Your task to perform on an android device: Open network settings Image 0: 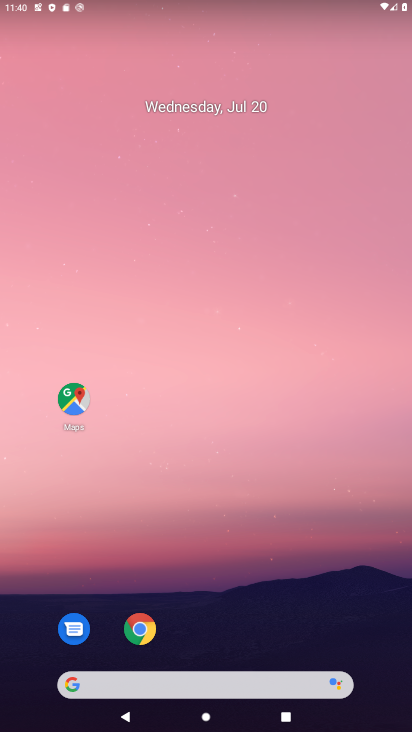
Step 0: click (400, 629)
Your task to perform on an android device: Open network settings Image 1: 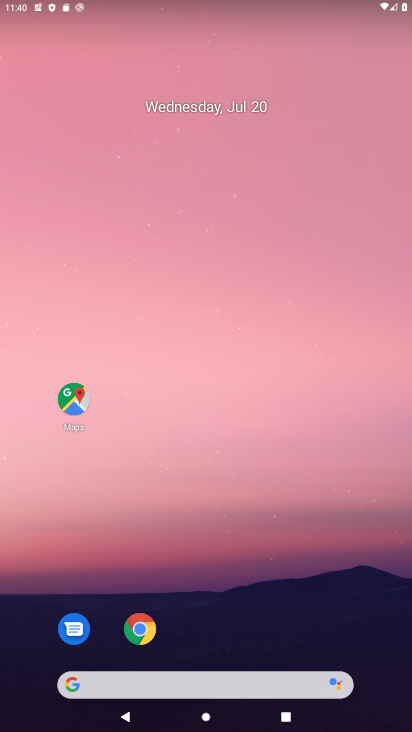
Step 1: drag from (264, 565) to (250, 236)
Your task to perform on an android device: Open network settings Image 2: 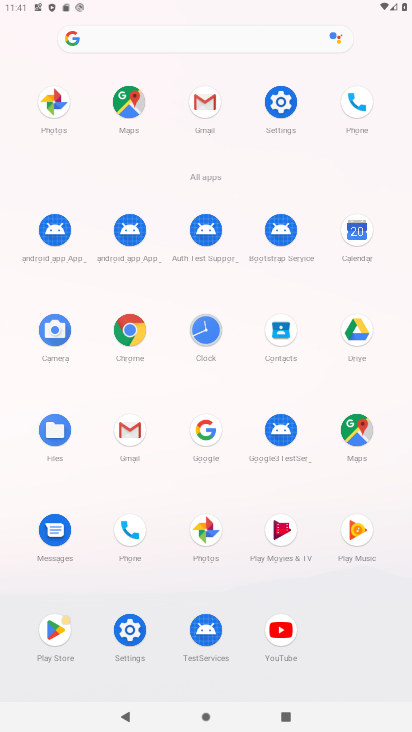
Step 2: click (281, 92)
Your task to perform on an android device: Open network settings Image 3: 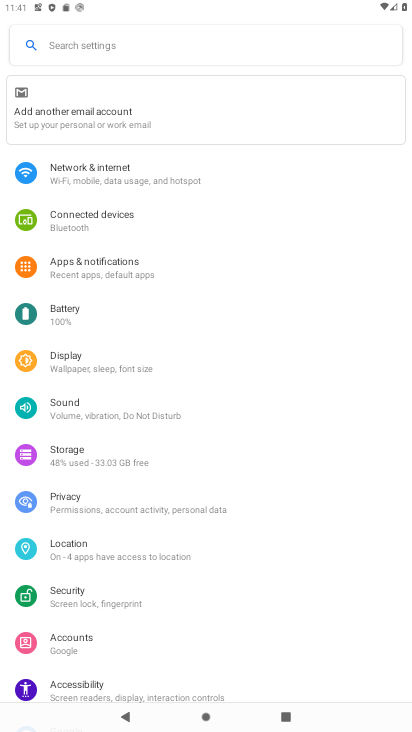
Step 3: click (114, 171)
Your task to perform on an android device: Open network settings Image 4: 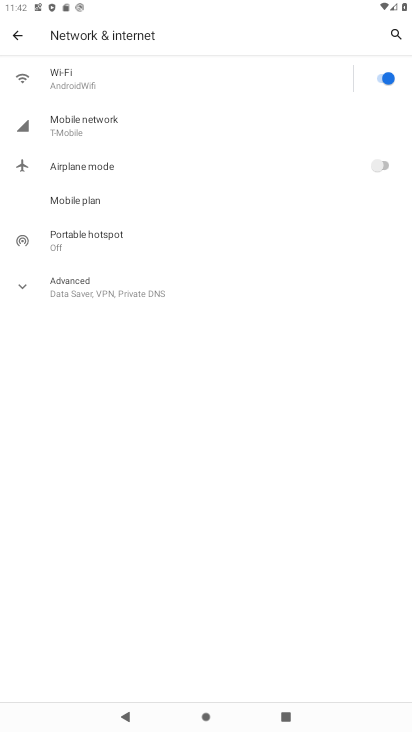
Step 4: task complete